Your task to perform on an android device: add a label to a message in the gmail app Image 0: 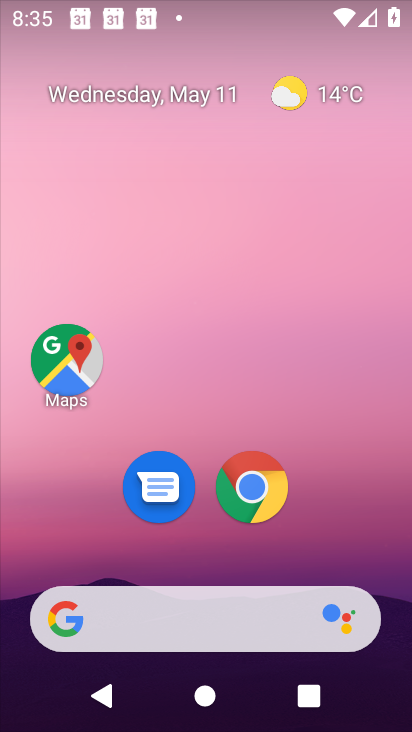
Step 0: drag from (219, 722) to (222, 79)
Your task to perform on an android device: add a label to a message in the gmail app Image 1: 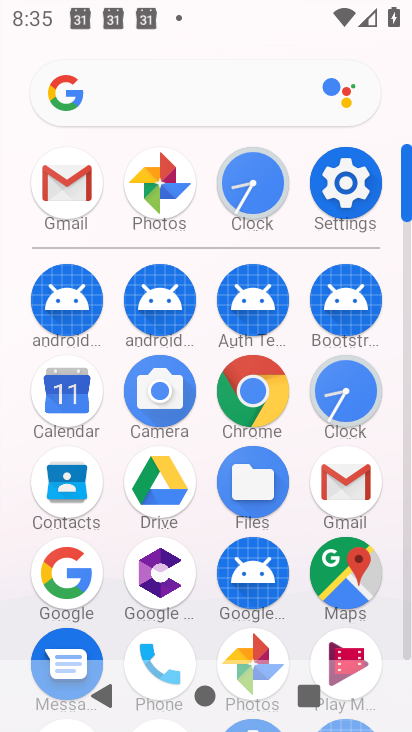
Step 1: click (349, 485)
Your task to perform on an android device: add a label to a message in the gmail app Image 2: 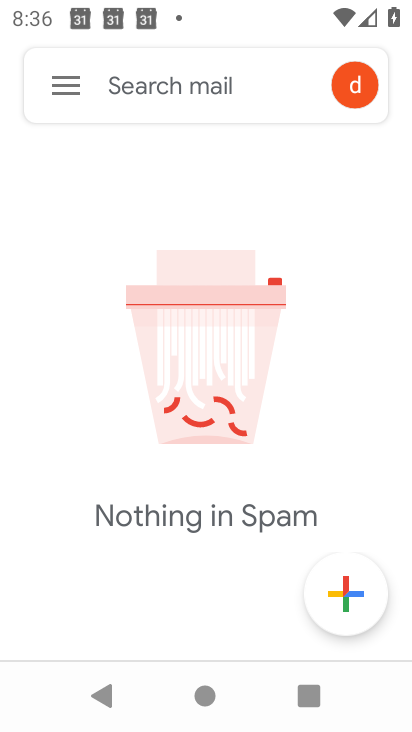
Step 2: click (57, 90)
Your task to perform on an android device: add a label to a message in the gmail app Image 3: 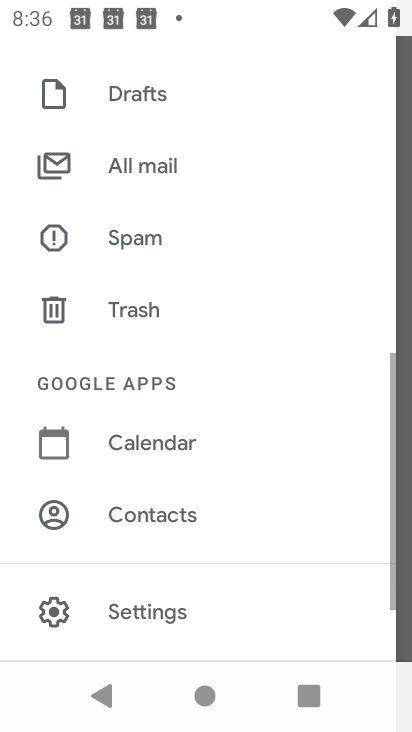
Step 3: drag from (157, 139) to (186, 594)
Your task to perform on an android device: add a label to a message in the gmail app Image 4: 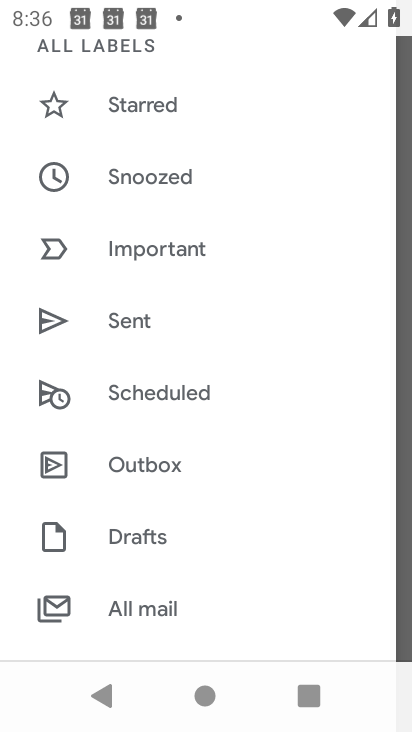
Step 4: drag from (218, 123) to (230, 531)
Your task to perform on an android device: add a label to a message in the gmail app Image 5: 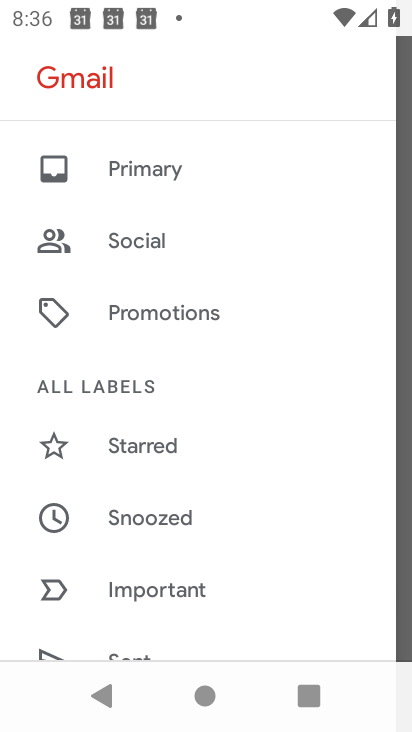
Step 5: drag from (192, 202) to (229, 648)
Your task to perform on an android device: add a label to a message in the gmail app Image 6: 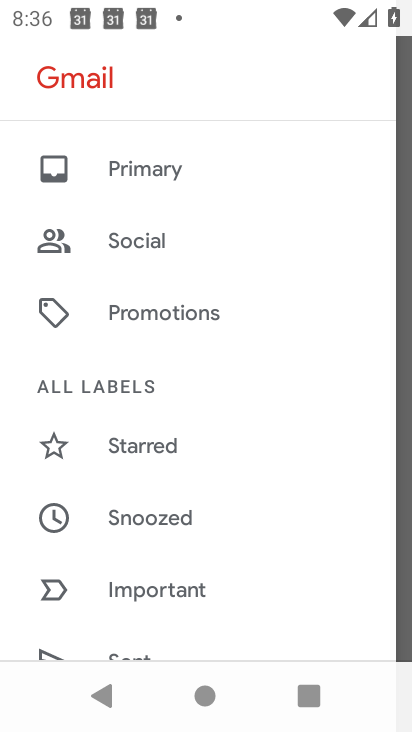
Step 6: click (154, 150)
Your task to perform on an android device: add a label to a message in the gmail app Image 7: 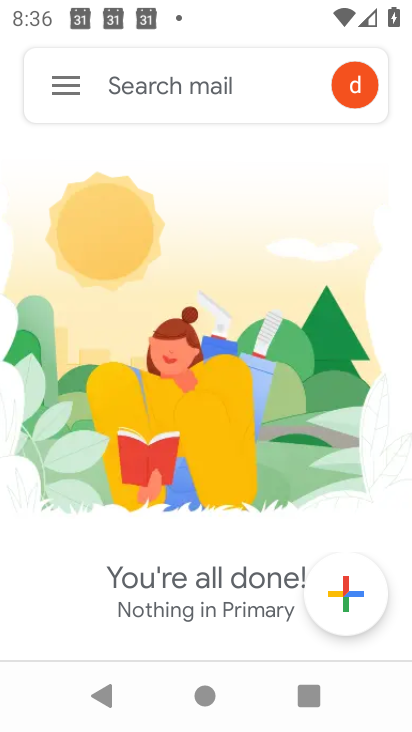
Step 7: task complete